Your task to perform on an android device: Play the last video I watched on Youtube Image 0: 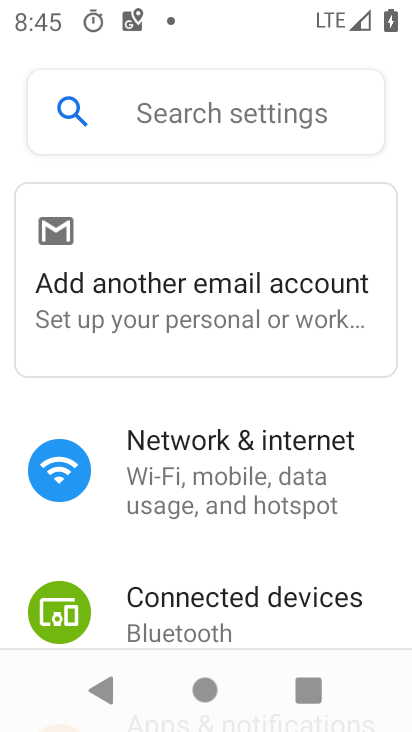
Step 0: drag from (230, 504) to (312, 67)
Your task to perform on an android device: Play the last video I watched on Youtube Image 1: 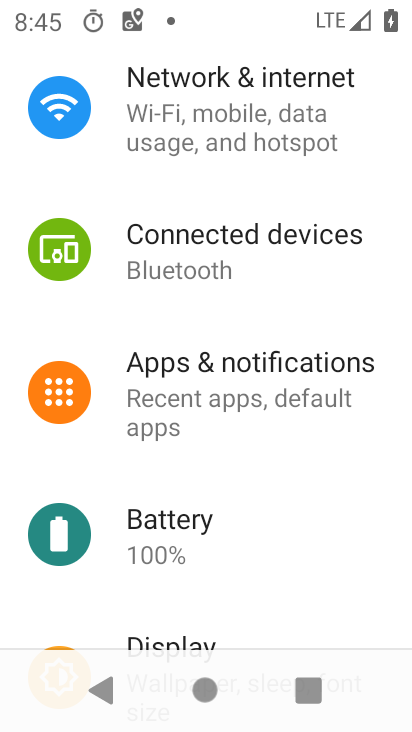
Step 1: press home button
Your task to perform on an android device: Play the last video I watched on Youtube Image 2: 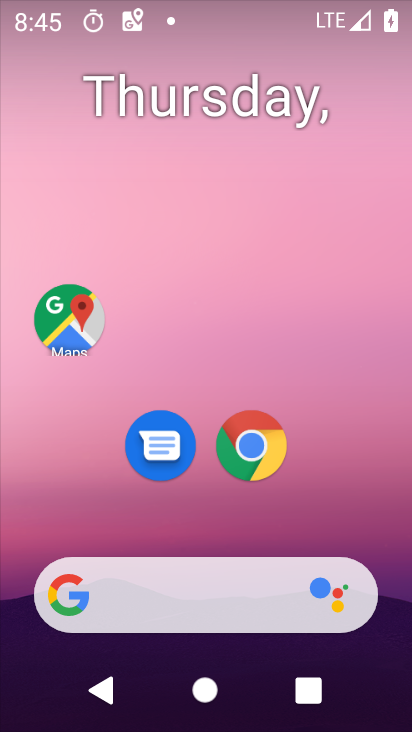
Step 2: drag from (217, 439) to (218, 214)
Your task to perform on an android device: Play the last video I watched on Youtube Image 3: 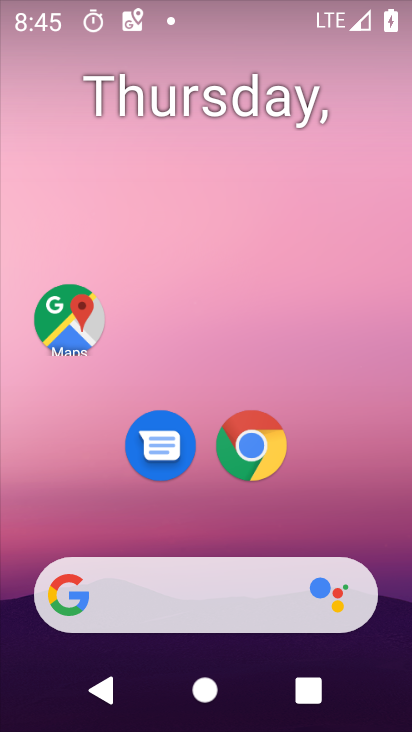
Step 3: drag from (190, 520) to (264, 81)
Your task to perform on an android device: Play the last video I watched on Youtube Image 4: 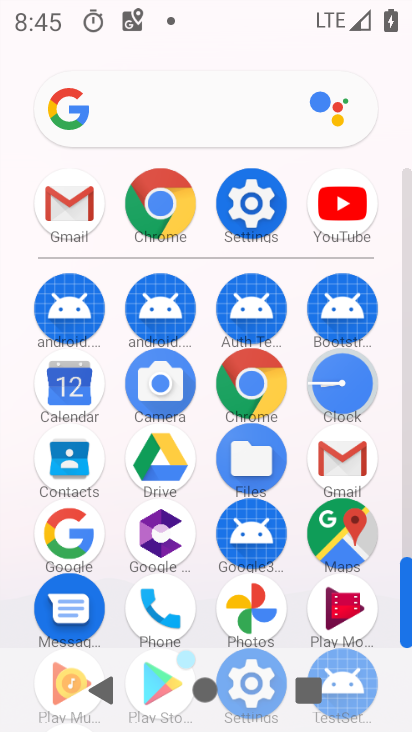
Step 4: click (355, 207)
Your task to perform on an android device: Play the last video I watched on Youtube Image 5: 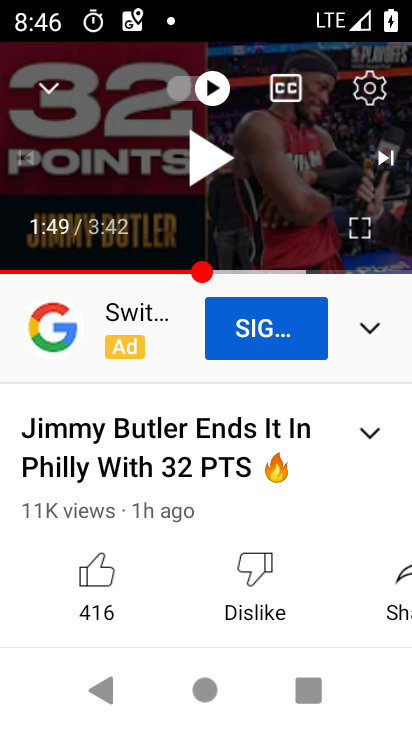
Step 5: drag from (271, 166) to (378, 644)
Your task to perform on an android device: Play the last video I watched on Youtube Image 6: 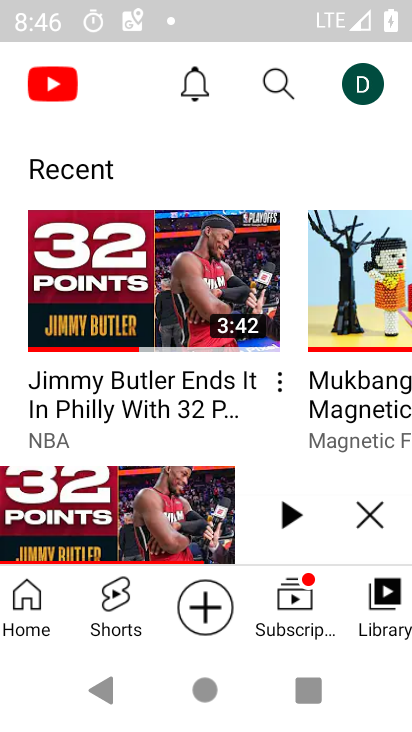
Step 6: click (375, 526)
Your task to perform on an android device: Play the last video I watched on Youtube Image 7: 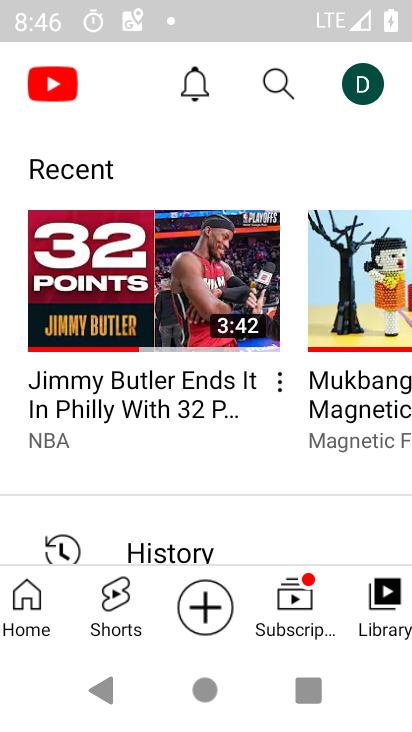
Step 7: click (150, 328)
Your task to perform on an android device: Play the last video I watched on Youtube Image 8: 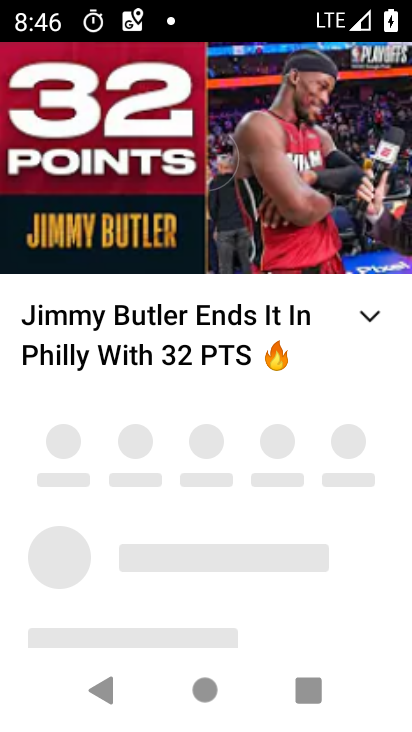
Step 8: task complete